Your task to perform on an android device: Clear all items from cart on ebay. Image 0: 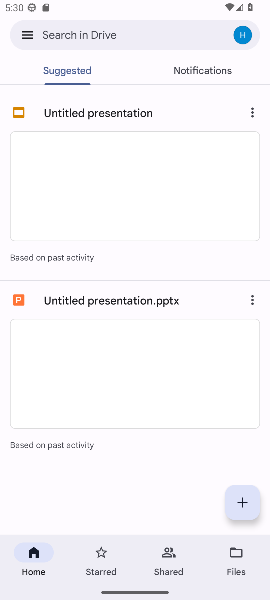
Step 0: press home button
Your task to perform on an android device: Clear all items from cart on ebay. Image 1: 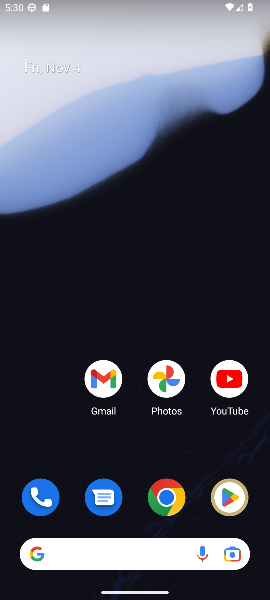
Step 1: click (170, 503)
Your task to perform on an android device: Clear all items from cart on ebay. Image 2: 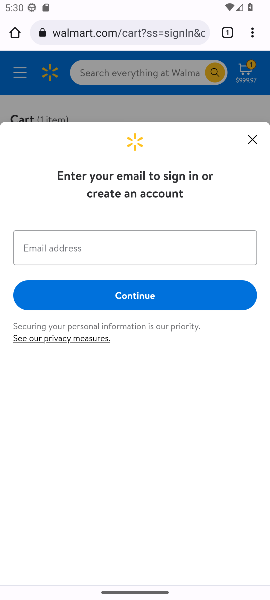
Step 2: click (153, 34)
Your task to perform on an android device: Clear all items from cart on ebay. Image 3: 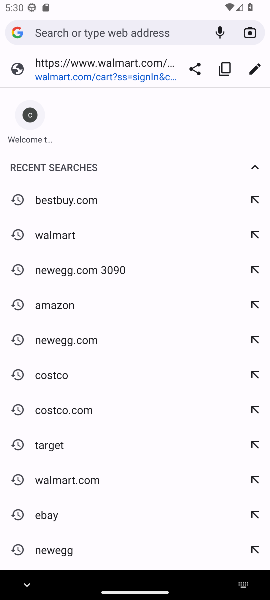
Step 3: click (43, 516)
Your task to perform on an android device: Clear all items from cart on ebay. Image 4: 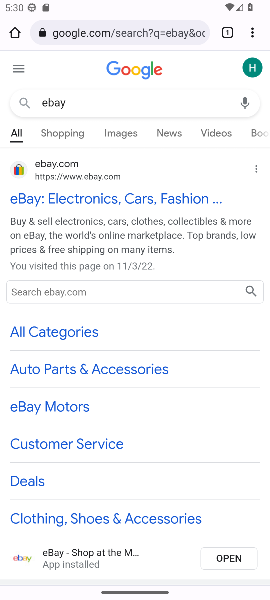
Step 4: click (53, 191)
Your task to perform on an android device: Clear all items from cart on ebay. Image 5: 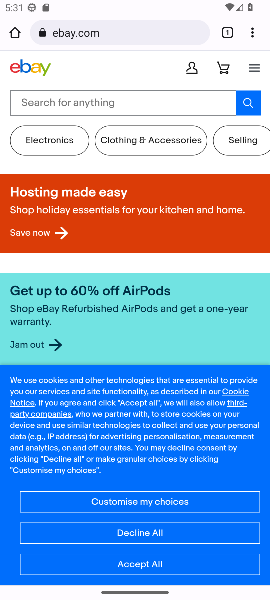
Step 5: click (220, 72)
Your task to perform on an android device: Clear all items from cart on ebay. Image 6: 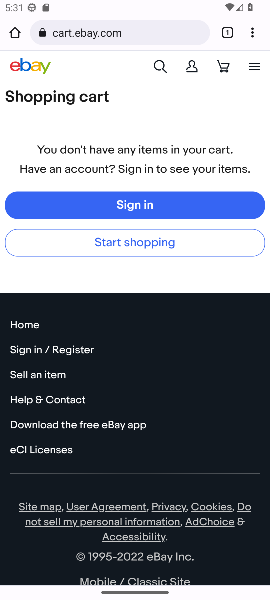
Step 6: task complete